Your task to perform on an android device: check battery use Image 0: 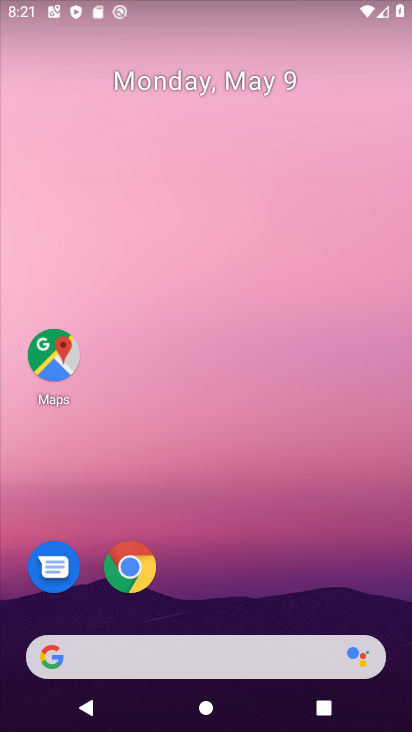
Step 0: drag from (351, 580) to (286, 165)
Your task to perform on an android device: check battery use Image 1: 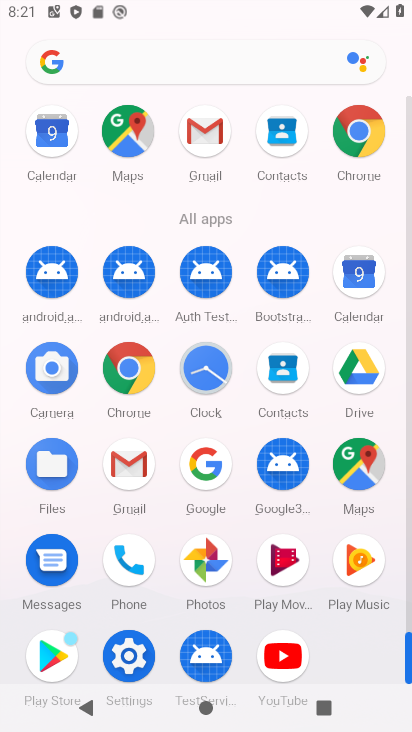
Step 1: click (125, 640)
Your task to perform on an android device: check battery use Image 2: 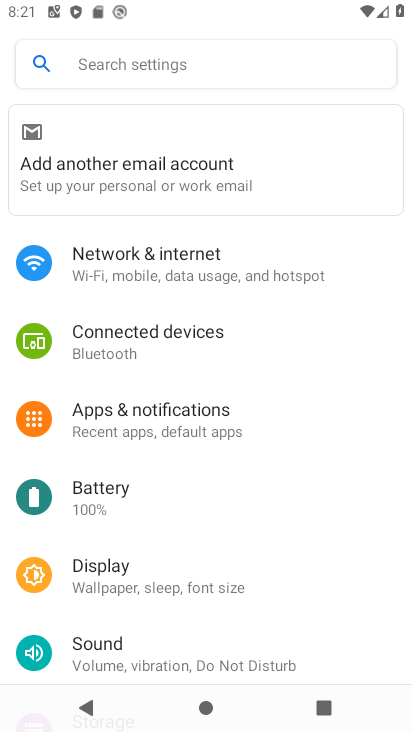
Step 2: click (125, 497)
Your task to perform on an android device: check battery use Image 3: 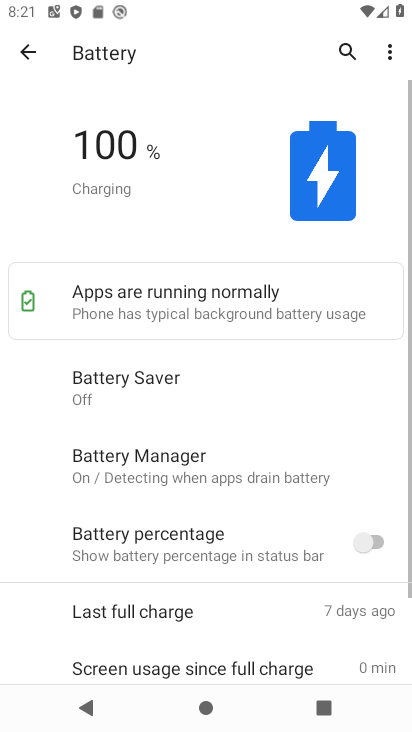
Step 3: click (379, 57)
Your task to perform on an android device: check battery use Image 4: 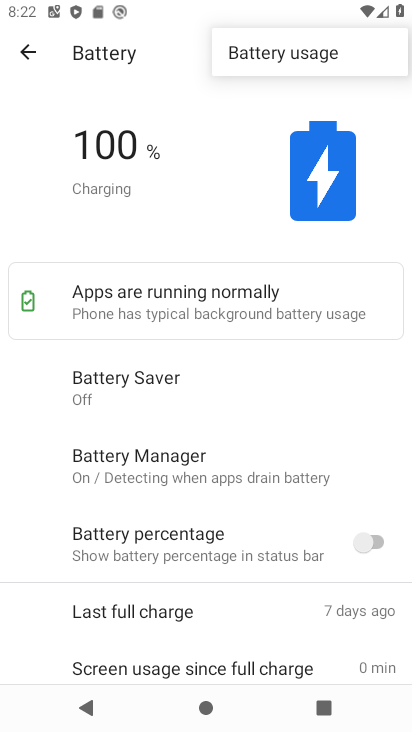
Step 4: click (261, 38)
Your task to perform on an android device: check battery use Image 5: 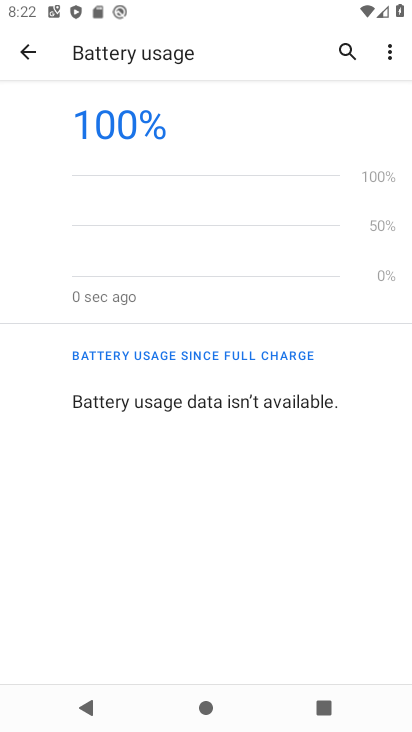
Step 5: task complete